Your task to perform on an android device: turn off notifications settings in the gmail app Image 0: 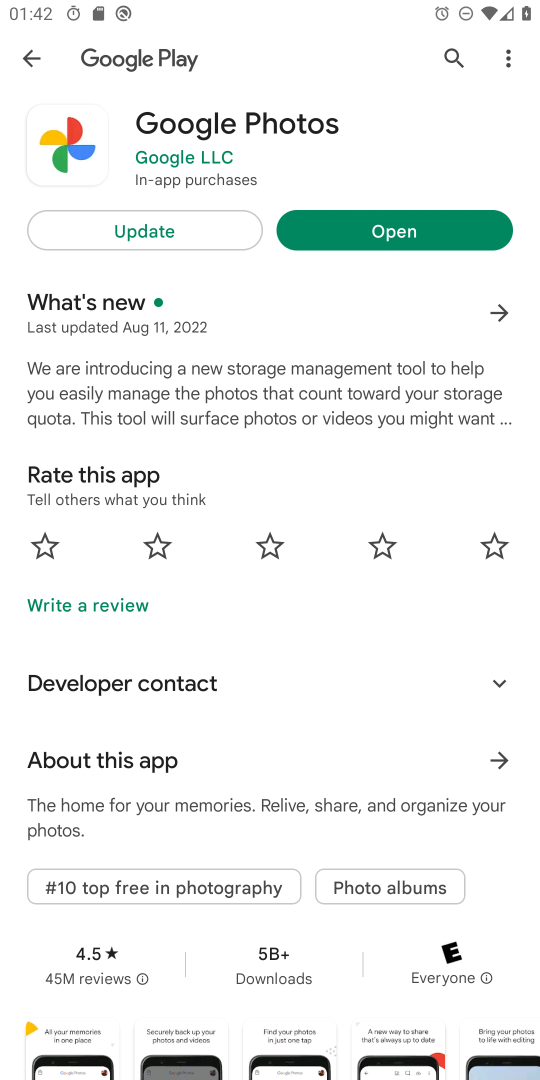
Step 0: press home button
Your task to perform on an android device: turn off notifications settings in the gmail app Image 1: 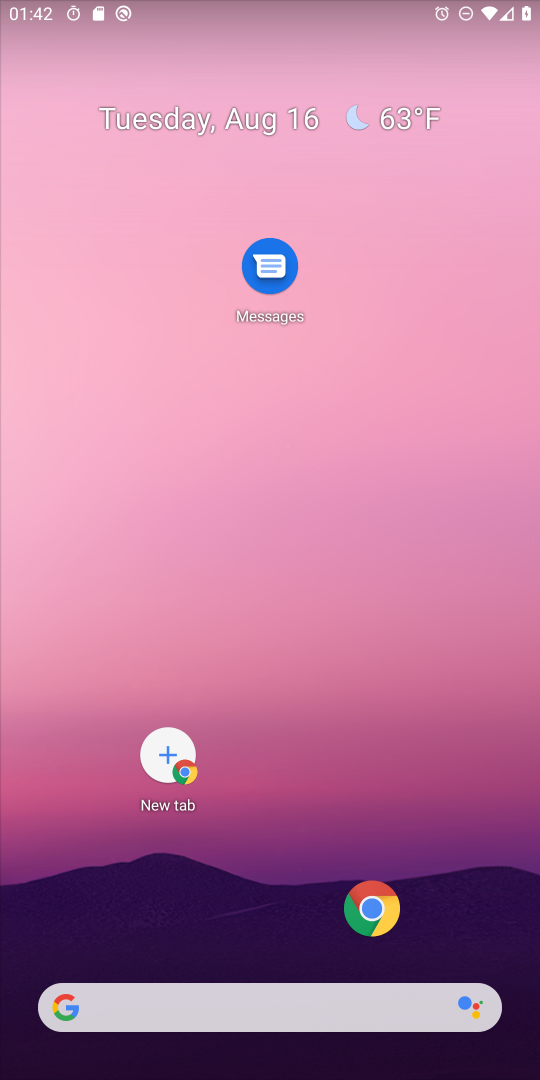
Step 1: drag from (134, 964) to (215, 144)
Your task to perform on an android device: turn off notifications settings in the gmail app Image 2: 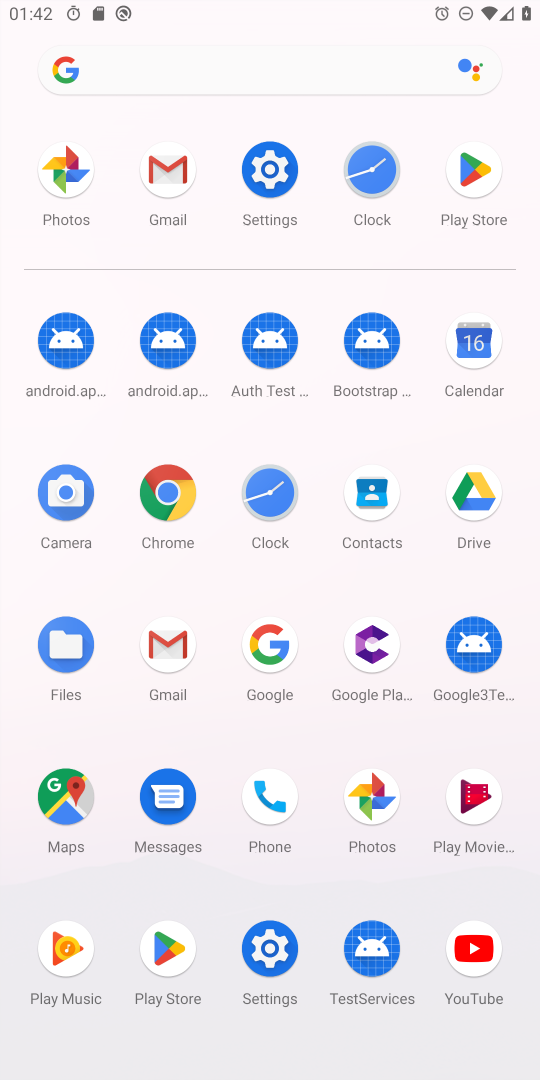
Step 2: click (273, 172)
Your task to perform on an android device: turn off notifications settings in the gmail app Image 3: 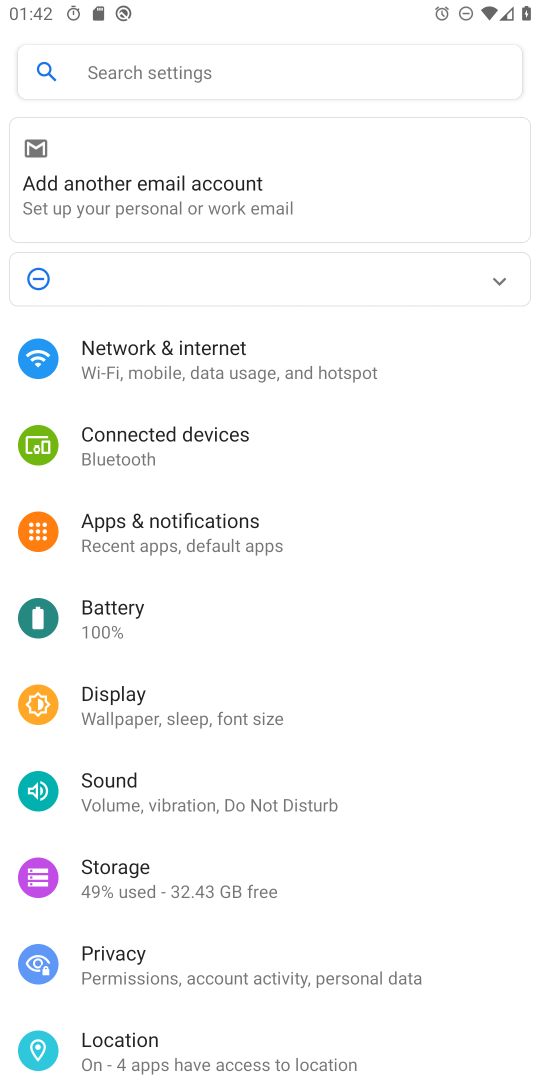
Step 3: click (282, 518)
Your task to perform on an android device: turn off notifications settings in the gmail app Image 4: 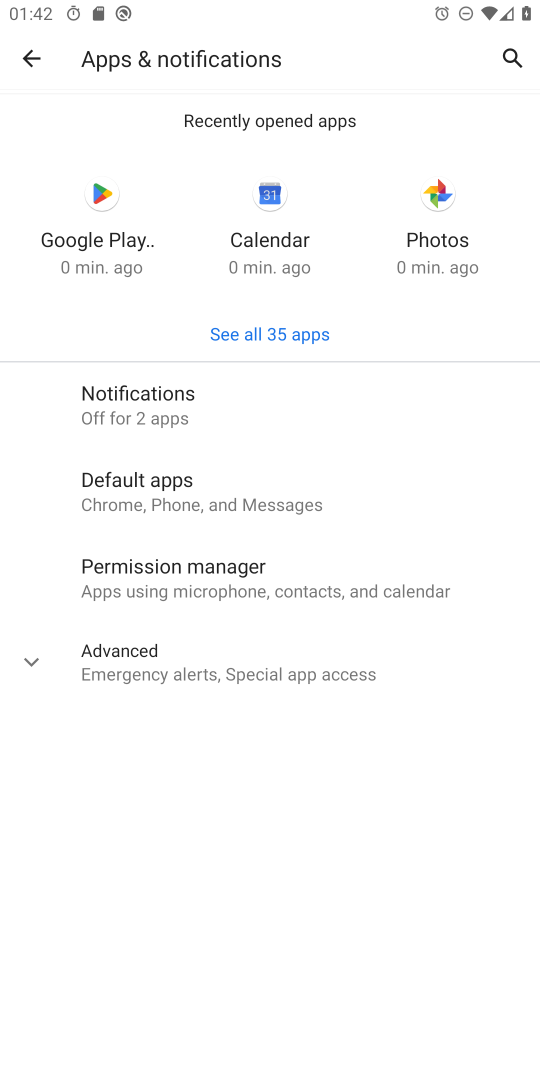
Step 4: click (320, 334)
Your task to perform on an android device: turn off notifications settings in the gmail app Image 5: 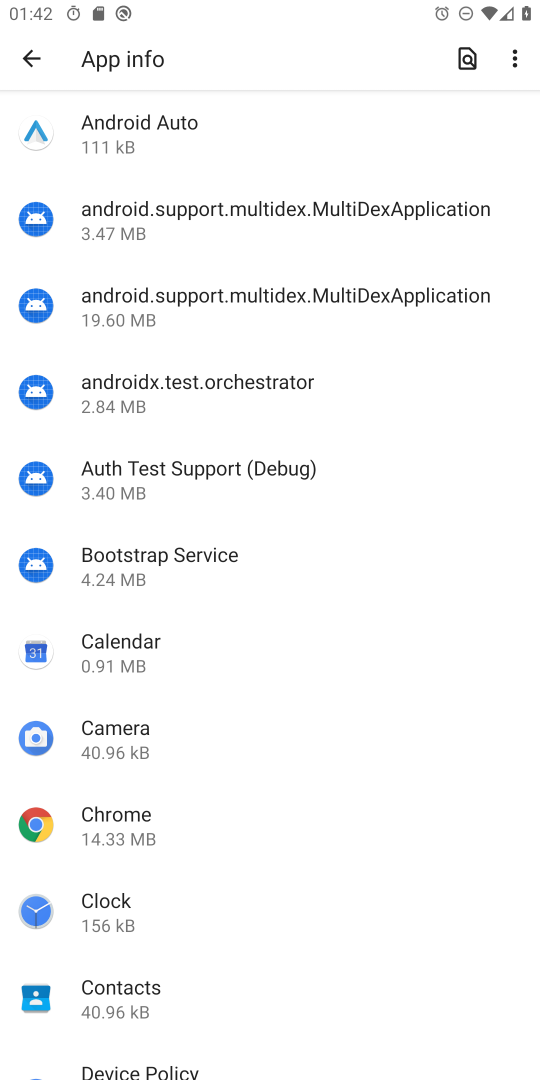
Step 5: drag from (196, 1036) to (185, 181)
Your task to perform on an android device: turn off notifications settings in the gmail app Image 6: 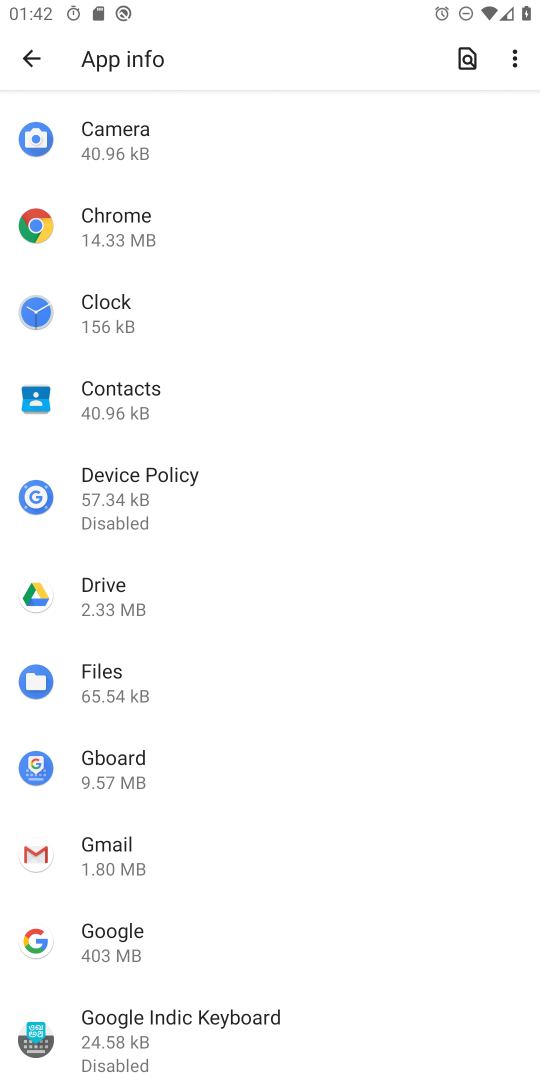
Step 6: click (129, 862)
Your task to perform on an android device: turn off notifications settings in the gmail app Image 7: 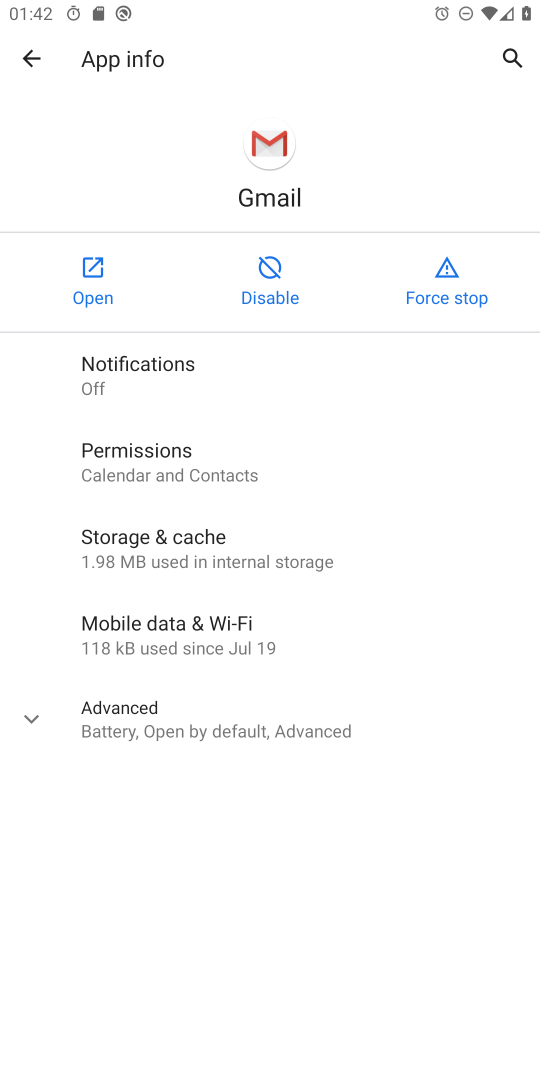
Step 7: task complete